Your task to perform on an android device: add a contact in the contacts app Image 0: 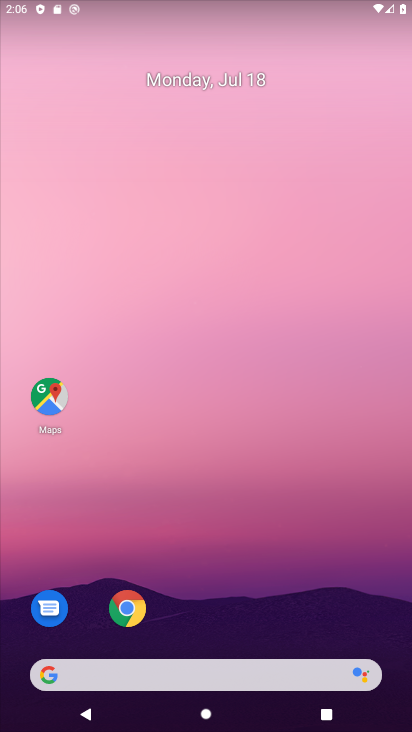
Step 0: drag from (317, 583) to (313, 165)
Your task to perform on an android device: add a contact in the contacts app Image 1: 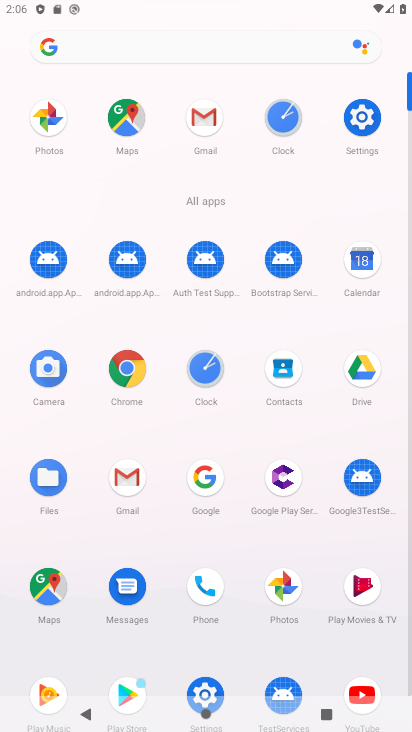
Step 1: click (289, 363)
Your task to perform on an android device: add a contact in the contacts app Image 2: 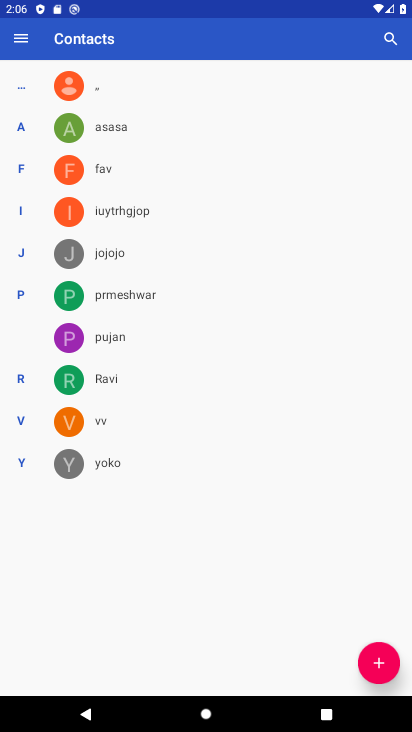
Step 2: click (370, 658)
Your task to perform on an android device: add a contact in the contacts app Image 3: 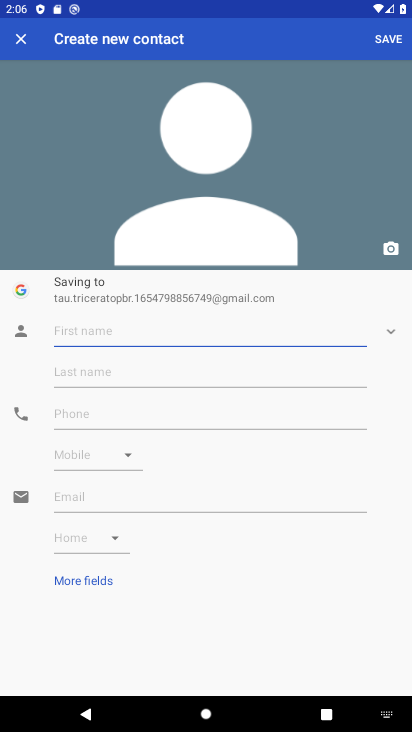
Step 3: type "treyi"
Your task to perform on an android device: add a contact in the contacts app Image 4: 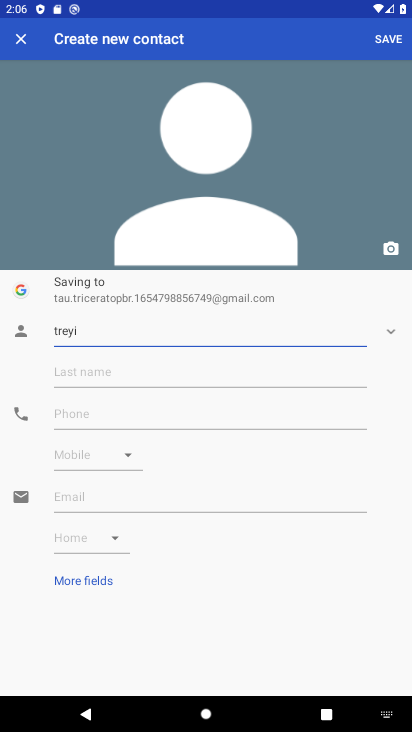
Step 4: click (82, 424)
Your task to perform on an android device: add a contact in the contacts app Image 5: 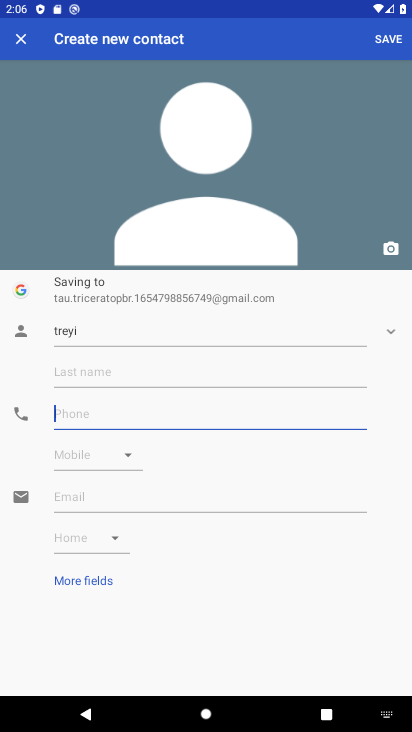
Step 5: type "1234567890"
Your task to perform on an android device: add a contact in the contacts app Image 6: 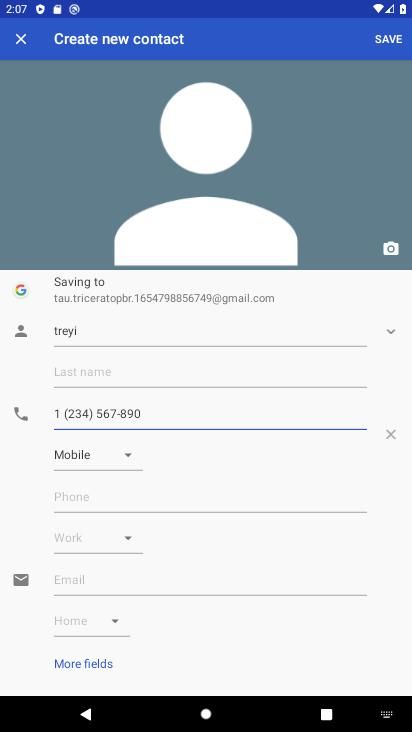
Step 6: click (391, 38)
Your task to perform on an android device: add a contact in the contacts app Image 7: 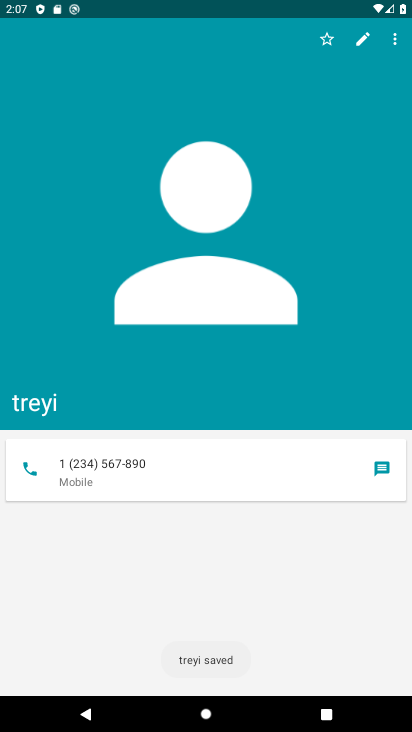
Step 7: task complete